Your task to perform on an android device: Open notification settings Image 0: 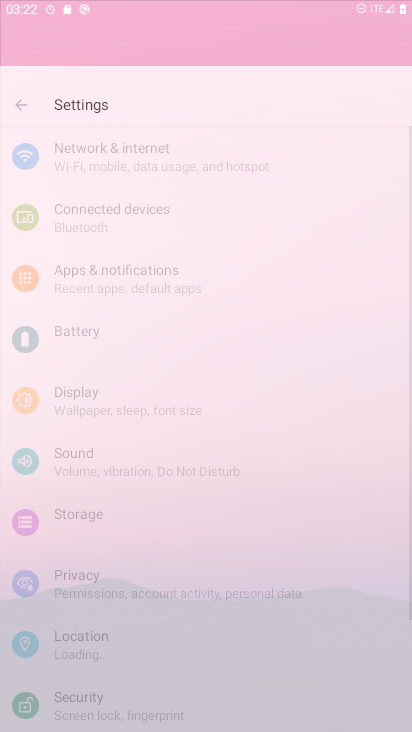
Step 0: drag from (338, 623) to (236, 69)
Your task to perform on an android device: Open notification settings Image 1: 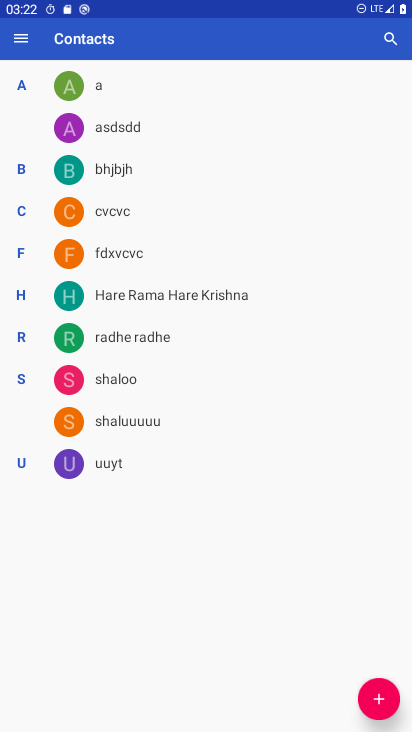
Step 1: press home button
Your task to perform on an android device: Open notification settings Image 2: 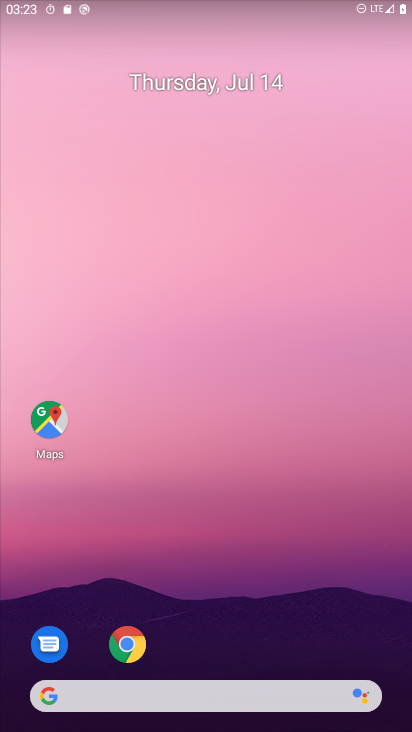
Step 2: drag from (251, 623) to (268, 194)
Your task to perform on an android device: Open notification settings Image 3: 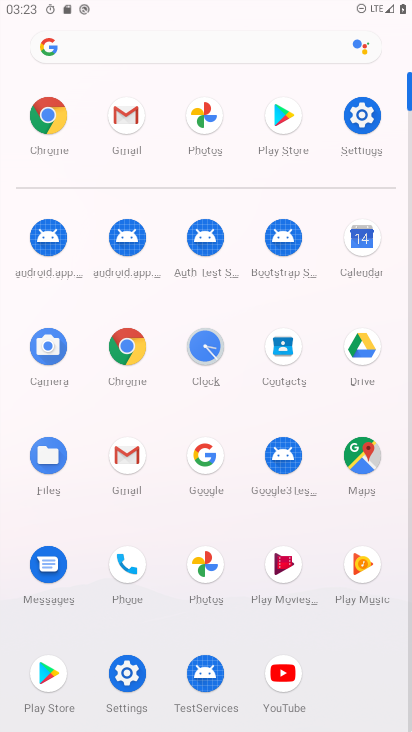
Step 3: click (353, 121)
Your task to perform on an android device: Open notification settings Image 4: 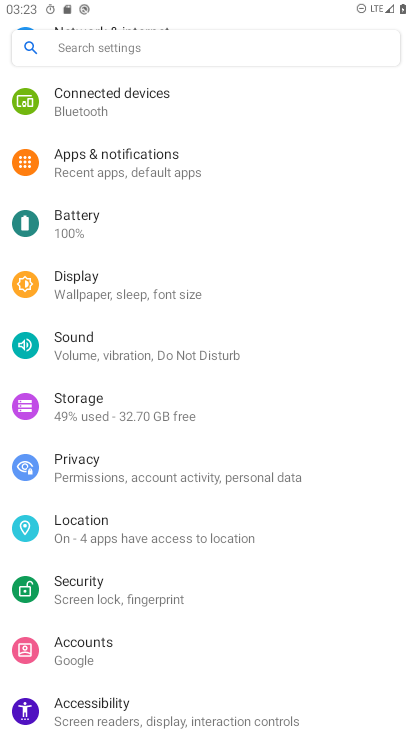
Step 4: click (159, 155)
Your task to perform on an android device: Open notification settings Image 5: 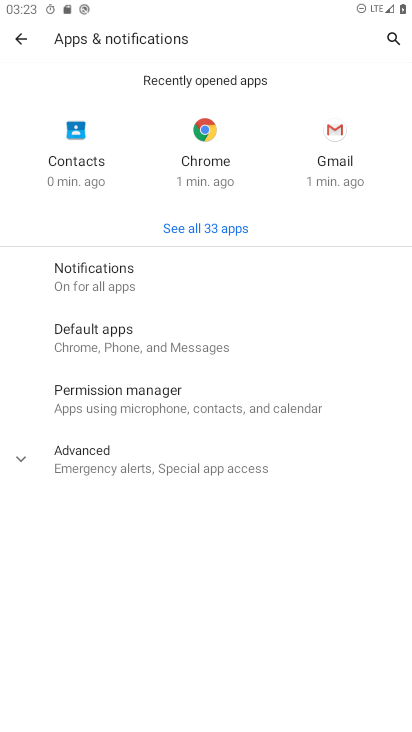
Step 5: click (117, 275)
Your task to perform on an android device: Open notification settings Image 6: 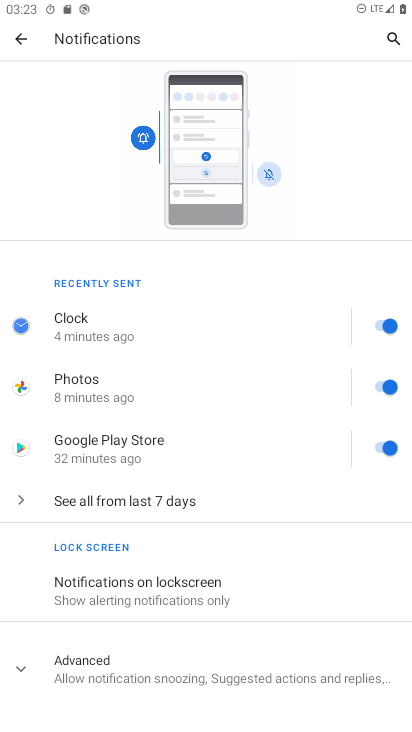
Step 6: task complete